Your task to perform on an android device: Go to location settings Image 0: 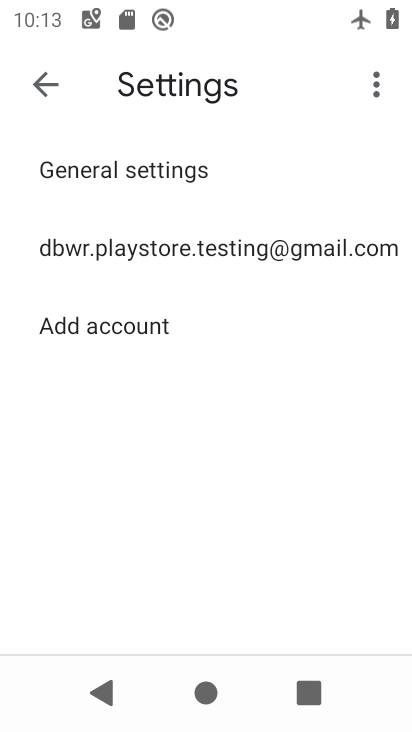
Step 0: press home button
Your task to perform on an android device: Go to location settings Image 1: 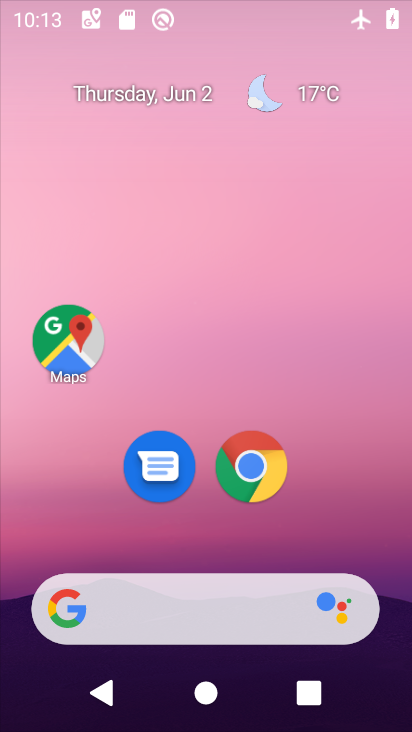
Step 1: drag from (211, 561) to (241, 160)
Your task to perform on an android device: Go to location settings Image 2: 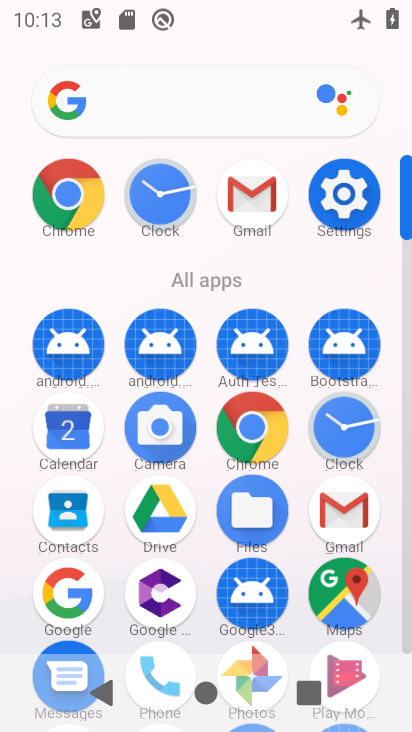
Step 2: drag from (210, 580) to (201, 218)
Your task to perform on an android device: Go to location settings Image 3: 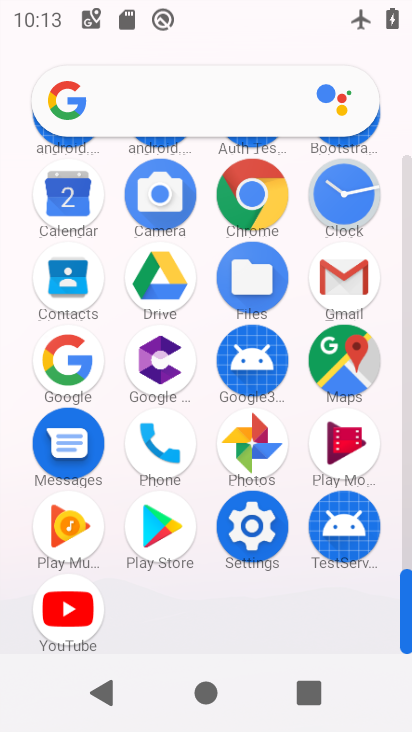
Step 3: drag from (314, 294) to (273, 570)
Your task to perform on an android device: Go to location settings Image 4: 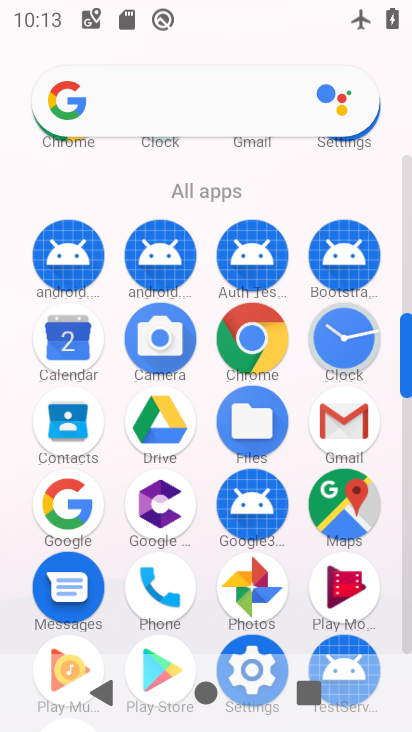
Step 4: drag from (336, 266) to (237, 592)
Your task to perform on an android device: Go to location settings Image 5: 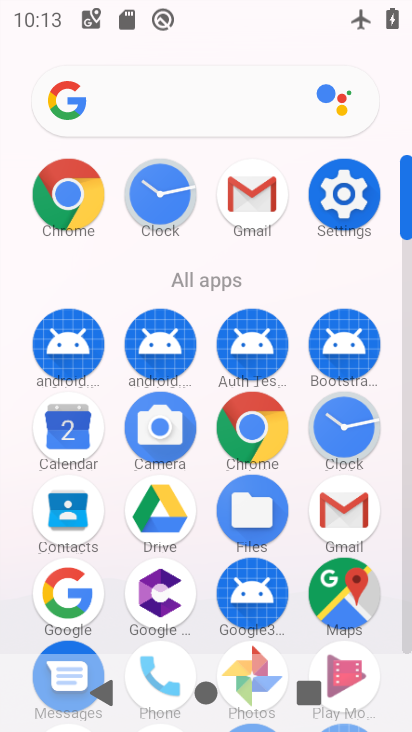
Step 5: click (321, 191)
Your task to perform on an android device: Go to location settings Image 6: 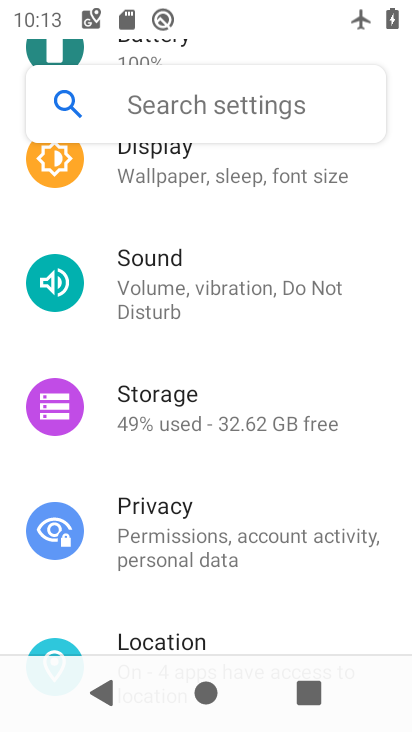
Step 6: drag from (186, 627) to (228, 237)
Your task to perform on an android device: Go to location settings Image 7: 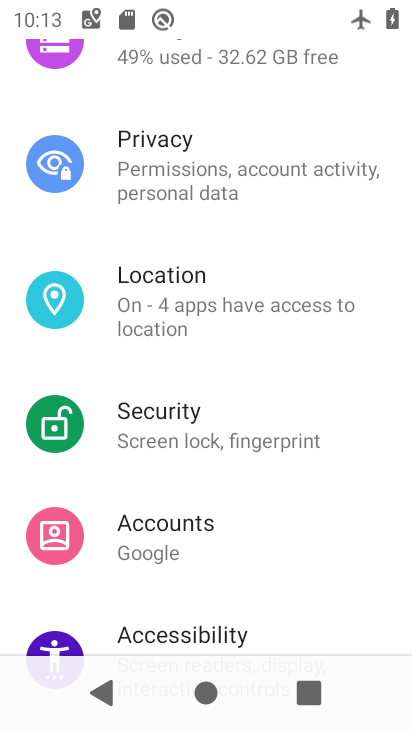
Step 7: click (203, 275)
Your task to perform on an android device: Go to location settings Image 8: 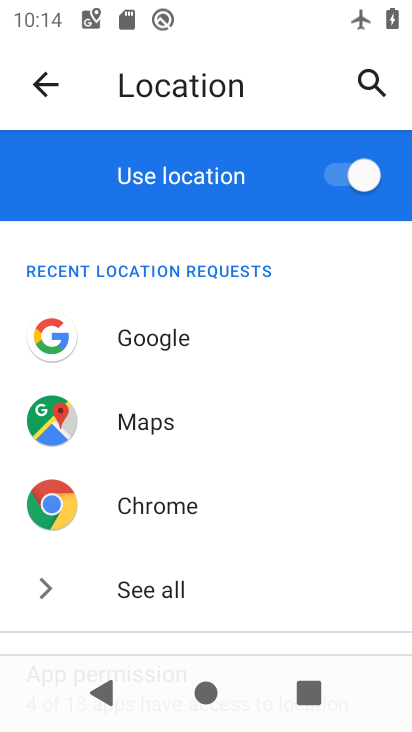
Step 8: task complete